Your task to perform on an android device: turn smart compose on in the gmail app Image 0: 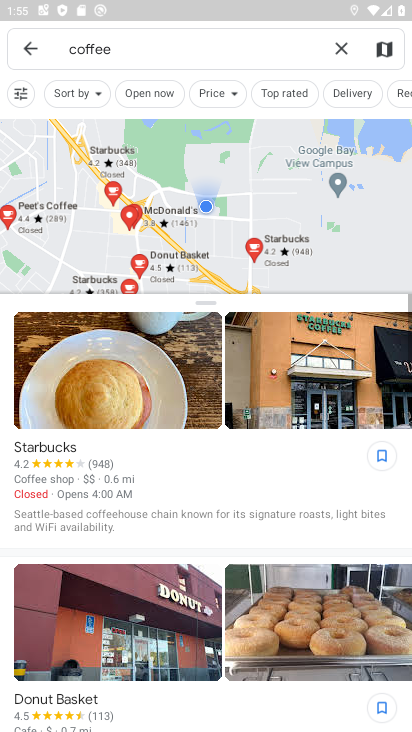
Step 0: press home button
Your task to perform on an android device: turn smart compose on in the gmail app Image 1: 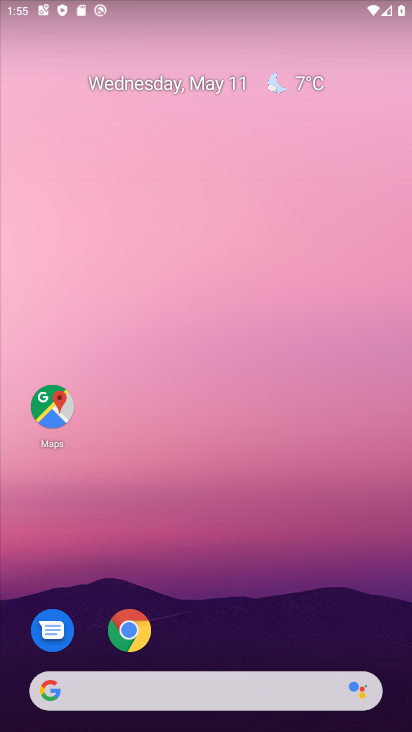
Step 1: drag from (396, 639) to (308, 36)
Your task to perform on an android device: turn smart compose on in the gmail app Image 2: 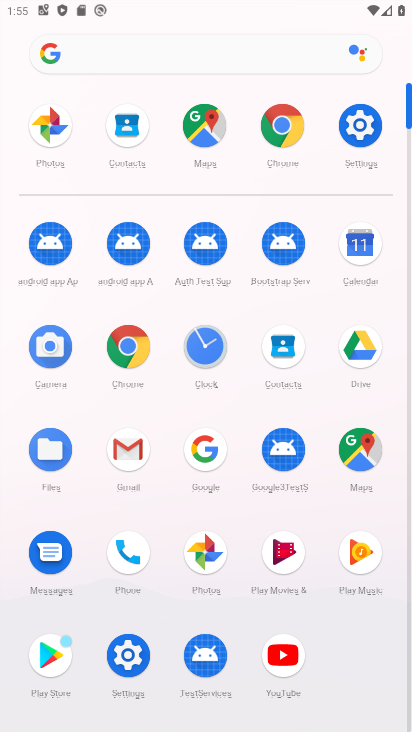
Step 2: click (128, 461)
Your task to perform on an android device: turn smart compose on in the gmail app Image 3: 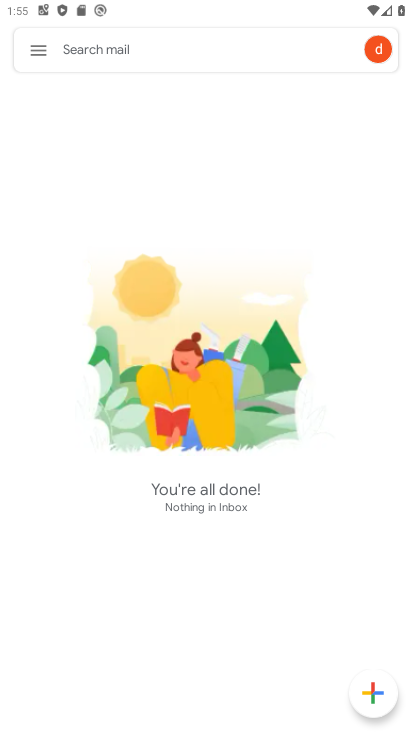
Step 3: click (43, 47)
Your task to perform on an android device: turn smart compose on in the gmail app Image 4: 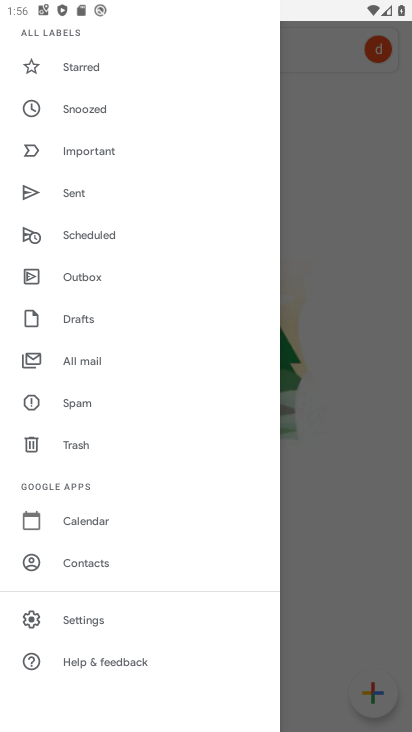
Step 4: click (116, 632)
Your task to perform on an android device: turn smart compose on in the gmail app Image 5: 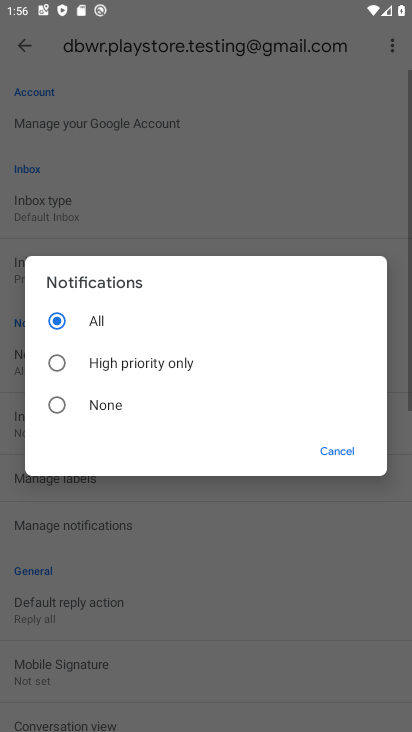
Step 5: click (361, 450)
Your task to perform on an android device: turn smart compose on in the gmail app Image 6: 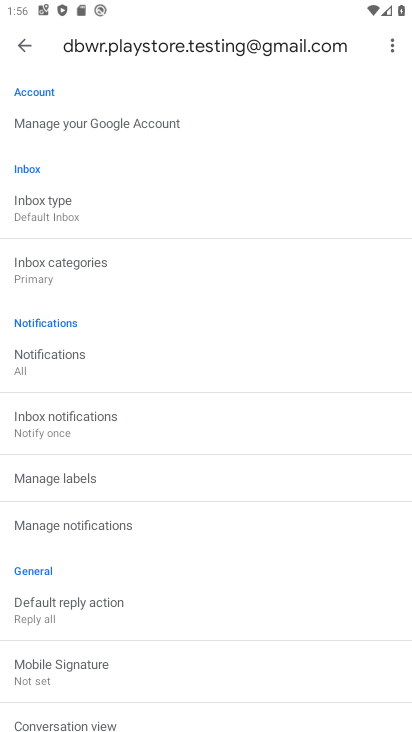
Step 6: task complete